Your task to perform on an android device: clear history in the chrome app Image 0: 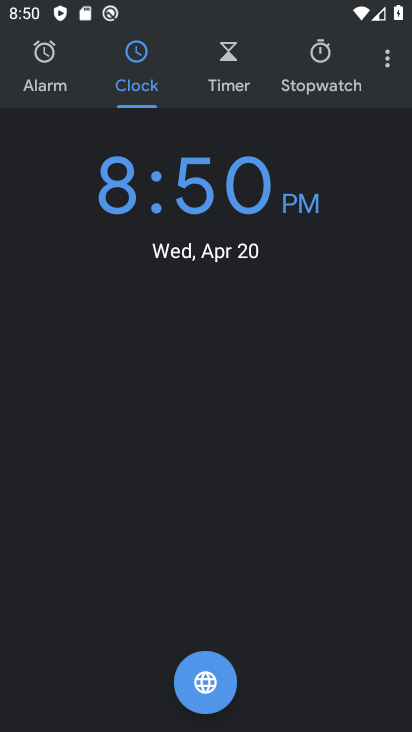
Step 0: press home button
Your task to perform on an android device: clear history in the chrome app Image 1: 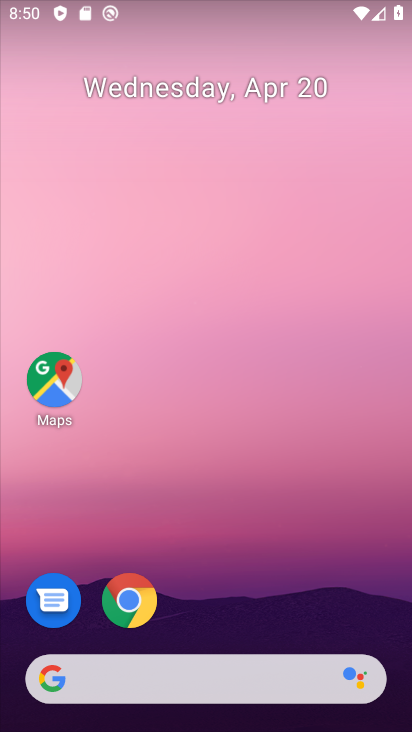
Step 1: click (145, 619)
Your task to perform on an android device: clear history in the chrome app Image 2: 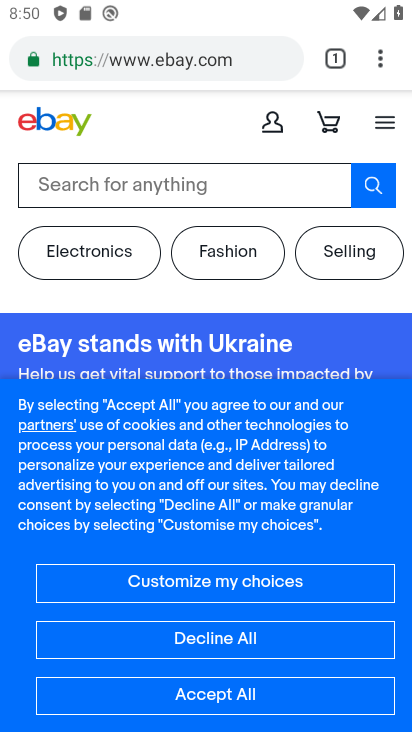
Step 2: click (376, 53)
Your task to perform on an android device: clear history in the chrome app Image 3: 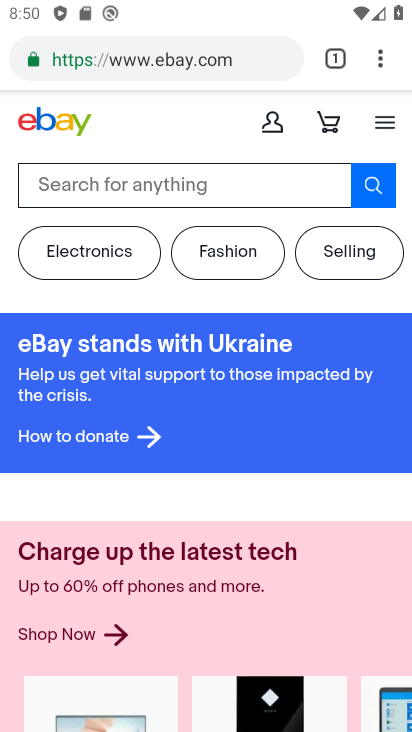
Step 3: drag from (376, 53) to (183, 332)
Your task to perform on an android device: clear history in the chrome app Image 4: 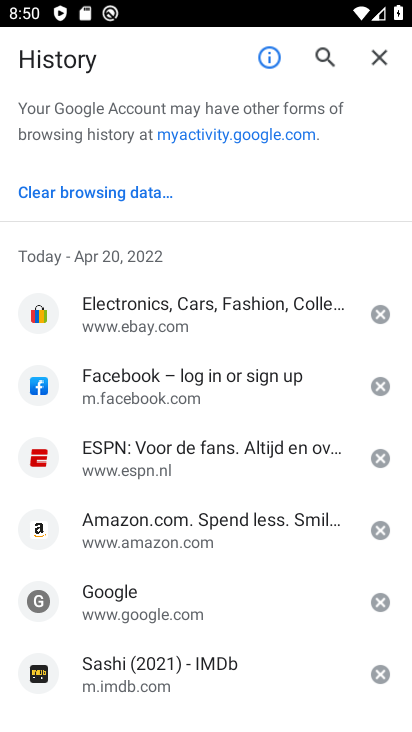
Step 4: click (107, 202)
Your task to perform on an android device: clear history in the chrome app Image 5: 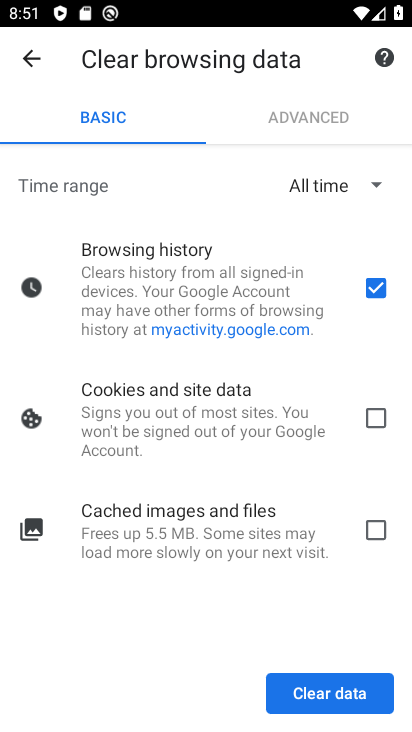
Step 5: click (330, 705)
Your task to perform on an android device: clear history in the chrome app Image 6: 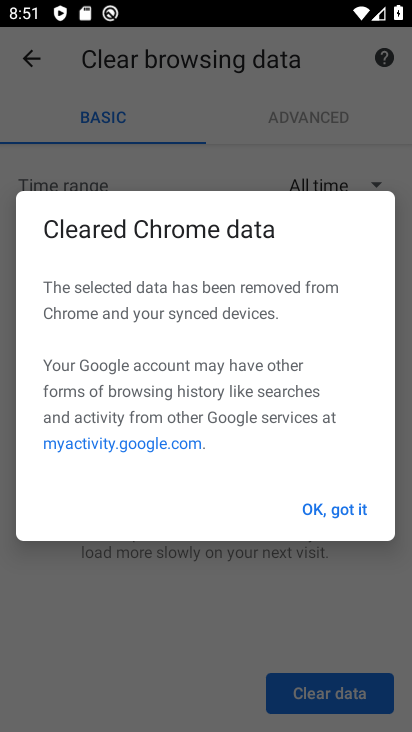
Step 6: click (313, 513)
Your task to perform on an android device: clear history in the chrome app Image 7: 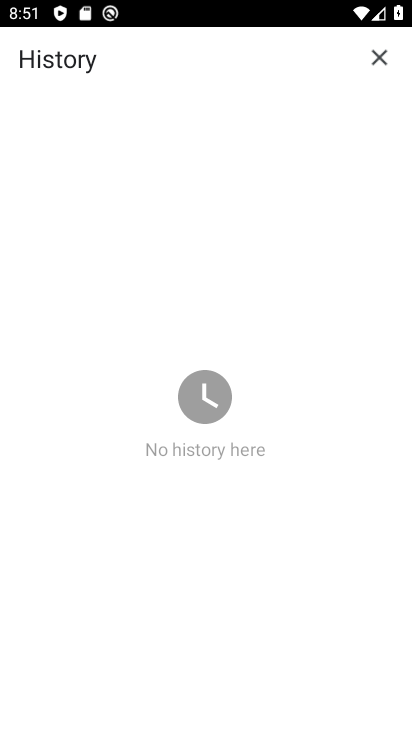
Step 7: task complete